Your task to perform on an android device: Open Google Chrome and click the shortcut for Amazon.com Image 0: 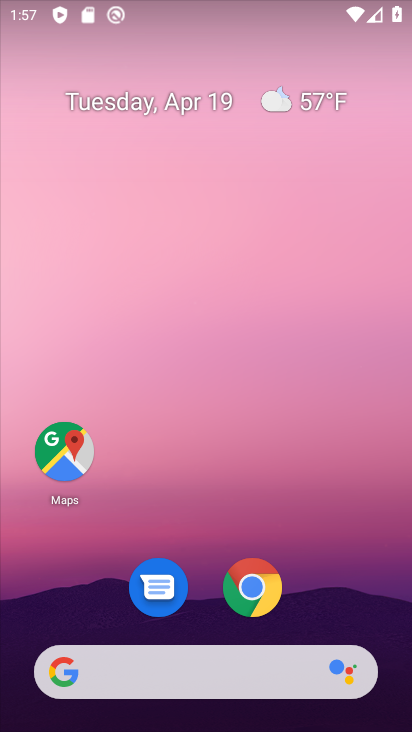
Step 0: click (252, 595)
Your task to perform on an android device: Open Google Chrome and click the shortcut for Amazon.com Image 1: 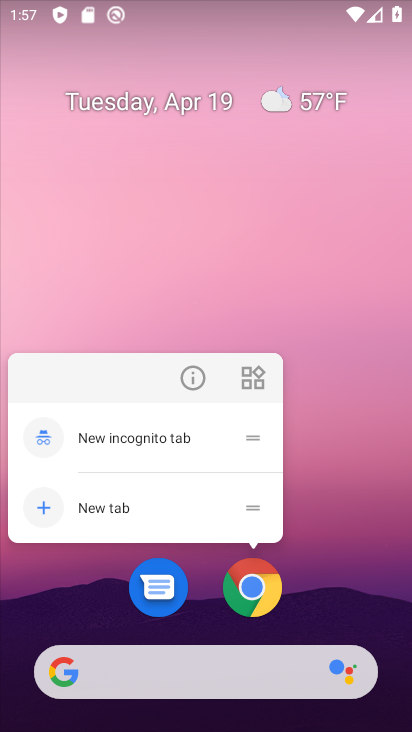
Step 1: click (257, 579)
Your task to perform on an android device: Open Google Chrome and click the shortcut for Amazon.com Image 2: 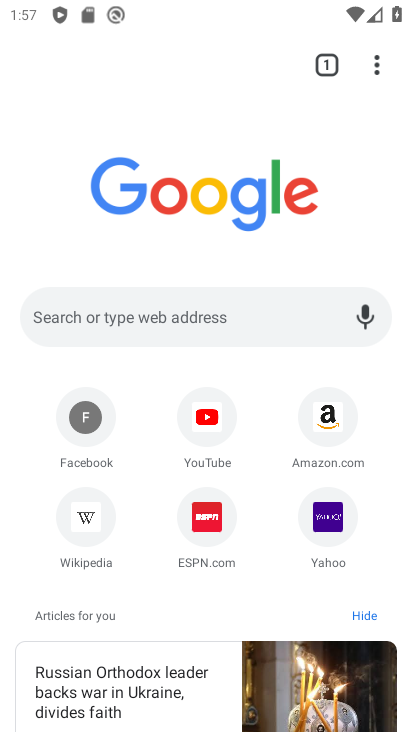
Step 2: click (313, 420)
Your task to perform on an android device: Open Google Chrome and click the shortcut for Amazon.com Image 3: 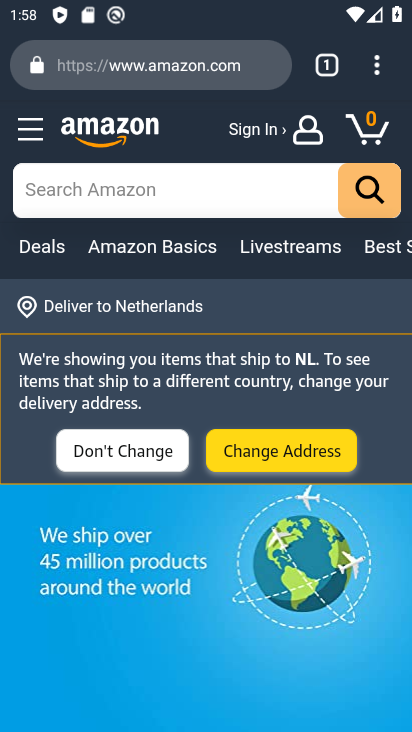
Step 3: task complete